Your task to perform on an android device: allow notifications from all sites in the chrome app Image 0: 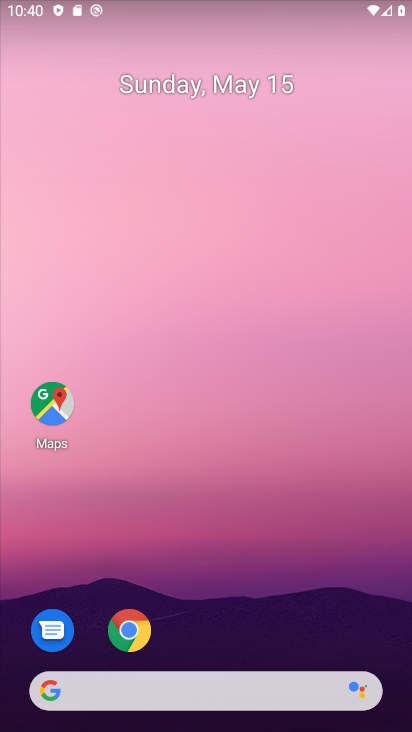
Step 0: click (133, 634)
Your task to perform on an android device: allow notifications from all sites in the chrome app Image 1: 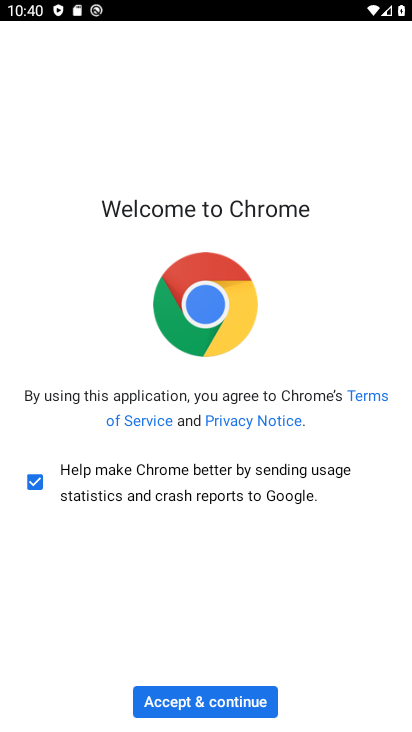
Step 1: click (220, 704)
Your task to perform on an android device: allow notifications from all sites in the chrome app Image 2: 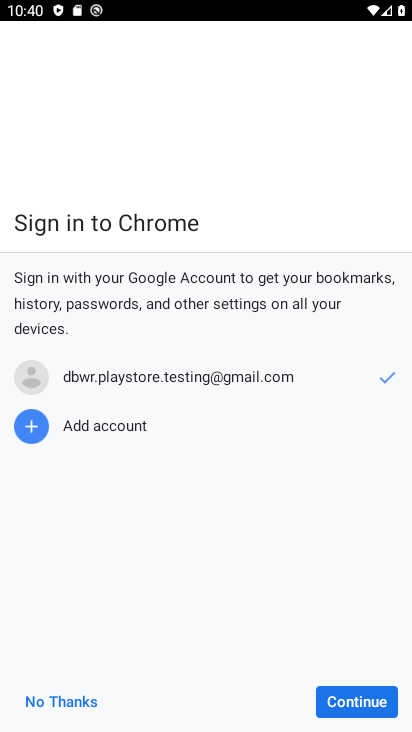
Step 2: click (341, 694)
Your task to perform on an android device: allow notifications from all sites in the chrome app Image 3: 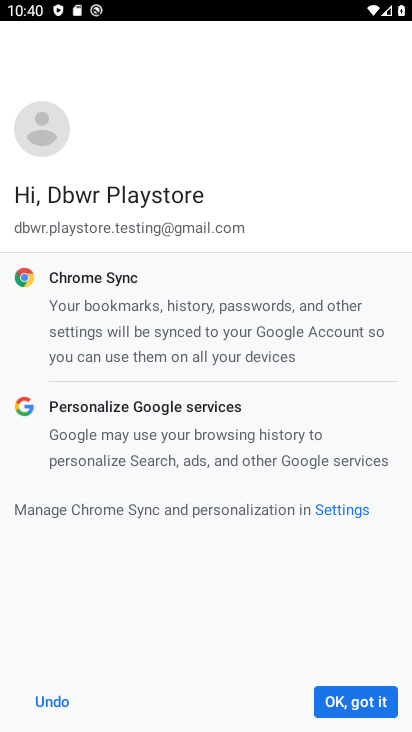
Step 3: click (332, 700)
Your task to perform on an android device: allow notifications from all sites in the chrome app Image 4: 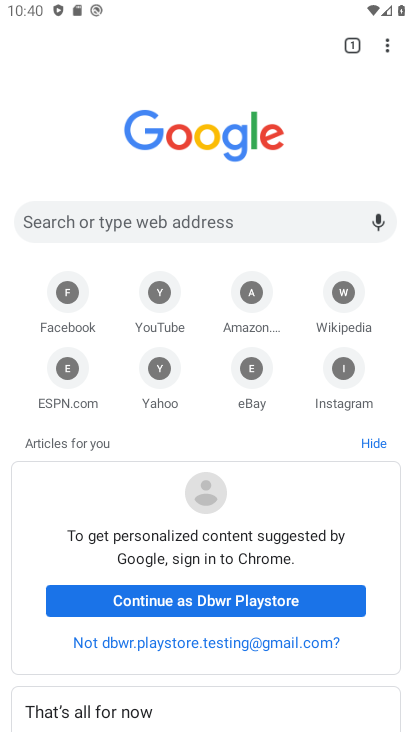
Step 4: drag from (388, 44) to (235, 376)
Your task to perform on an android device: allow notifications from all sites in the chrome app Image 5: 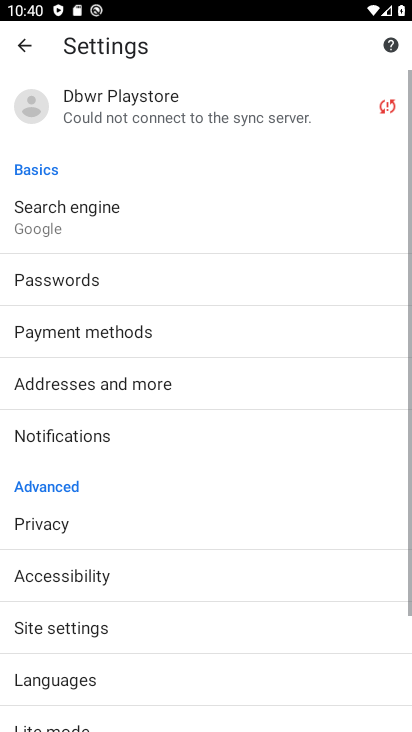
Step 5: click (71, 426)
Your task to perform on an android device: allow notifications from all sites in the chrome app Image 6: 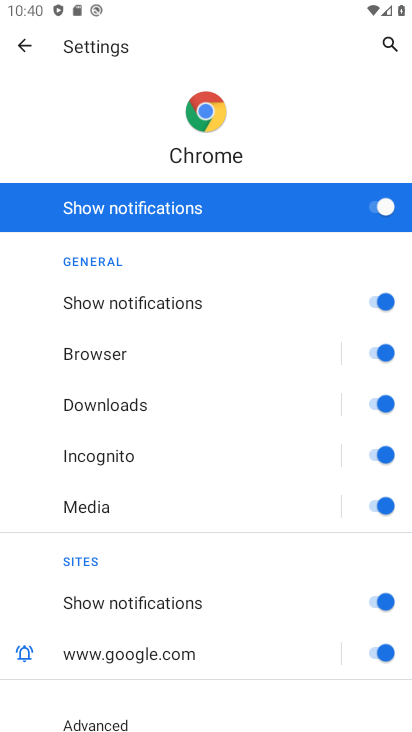
Step 6: task complete